Your task to perform on an android device: turn off improve location accuracy Image 0: 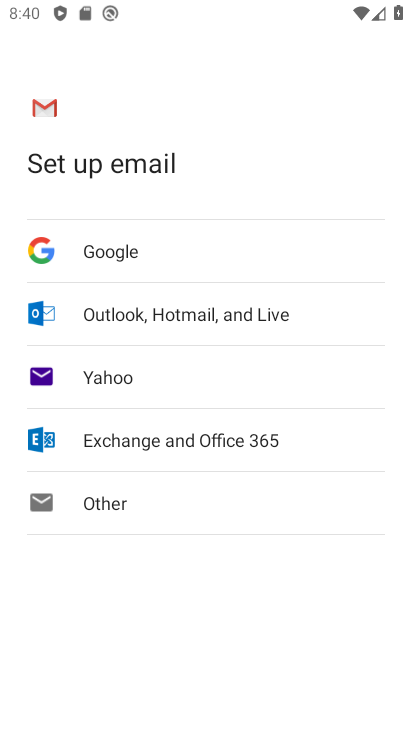
Step 0: click (131, 600)
Your task to perform on an android device: turn off improve location accuracy Image 1: 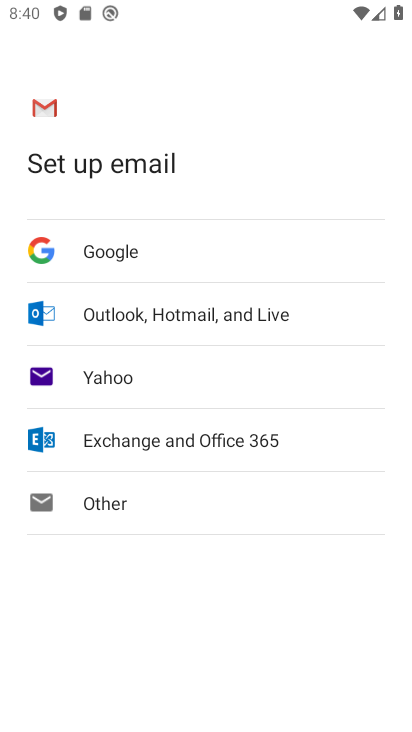
Step 1: press home button
Your task to perform on an android device: turn off improve location accuracy Image 2: 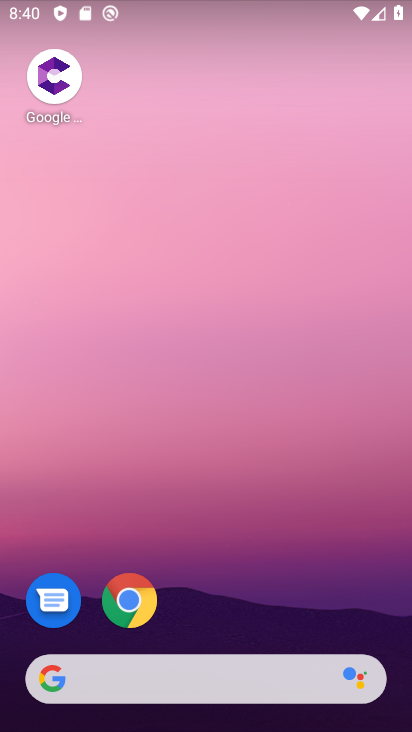
Step 2: drag from (160, 597) to (285, 9)
Your task to perform on an android device: turn off improve location accuracy Image 3: 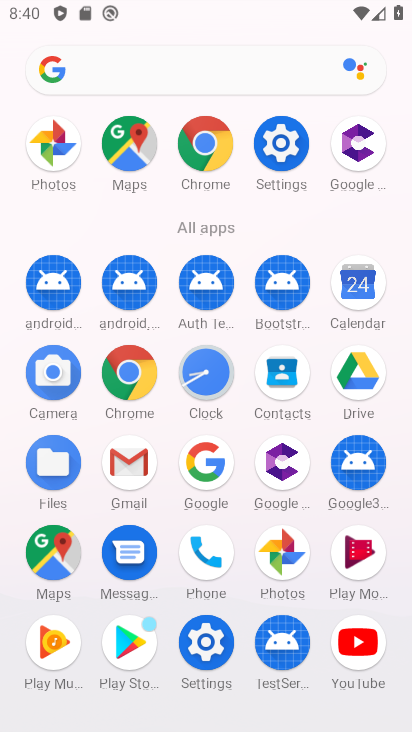
Step 3: click (286, 116)
Your task to perform on an android device: turn off improve location accuracy Image 4: 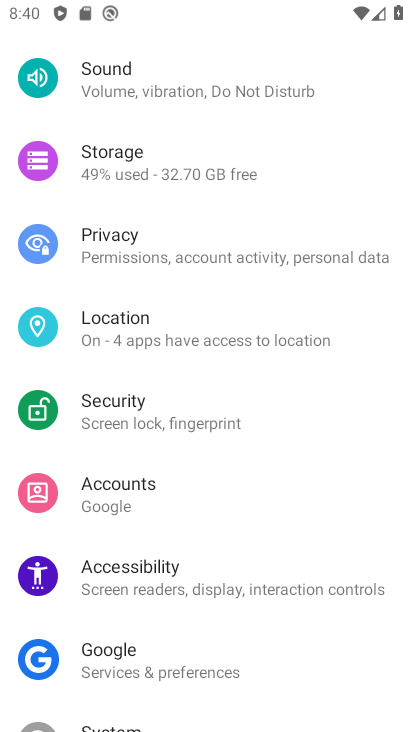
Step 4: click (137, 314)
Your task to perform on an android device: turn off improve location accuracy Image 5: 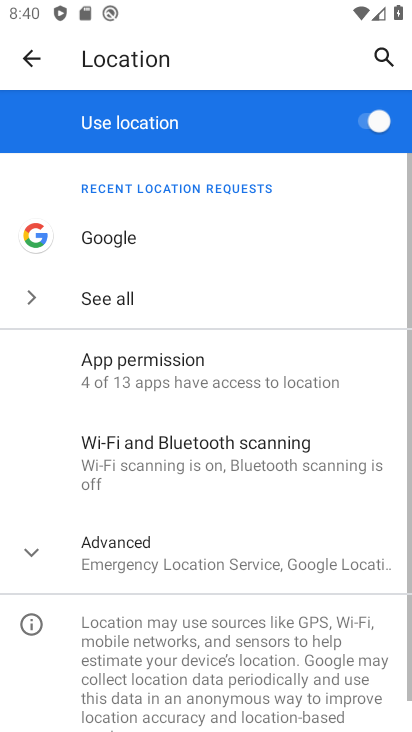
Step 5: click (141, 565)
Your task to perform on an android device: turn off improve location accuracy Image 6: 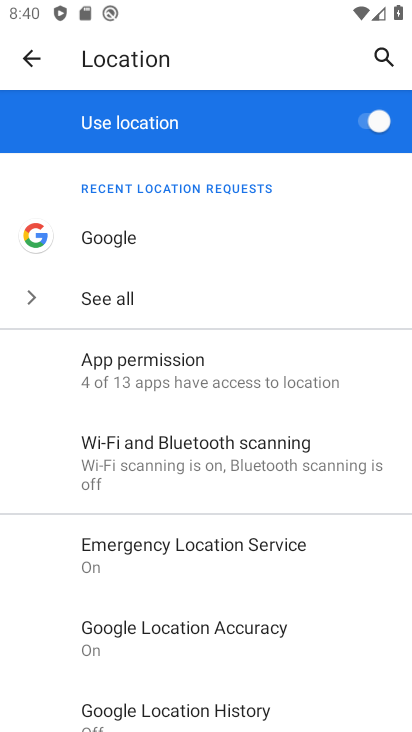
Step 6: click (138, 634)
Your task to perform on an android device: turn off improve location accuracy Image 7: 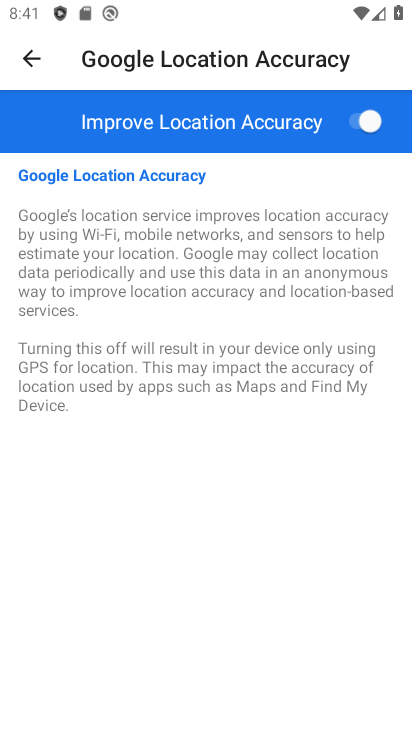
Step 7: click (378, 118)
Your task to perform on an android device: turn off improve location accuracy Image 8: 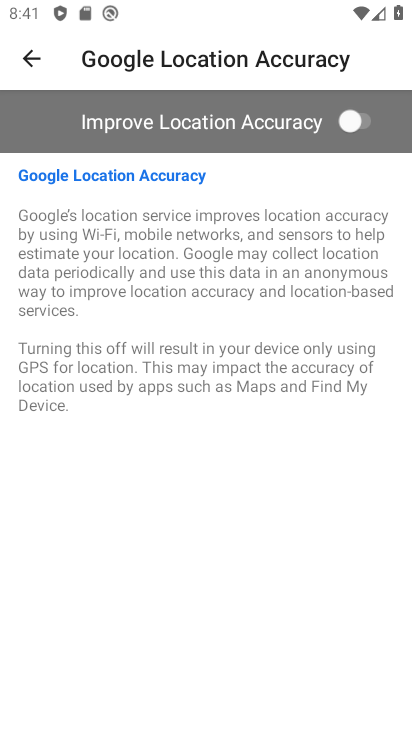
Step 8: task complete